Your task to perform on an android device: Is it going to rain this weekend? Image 0: 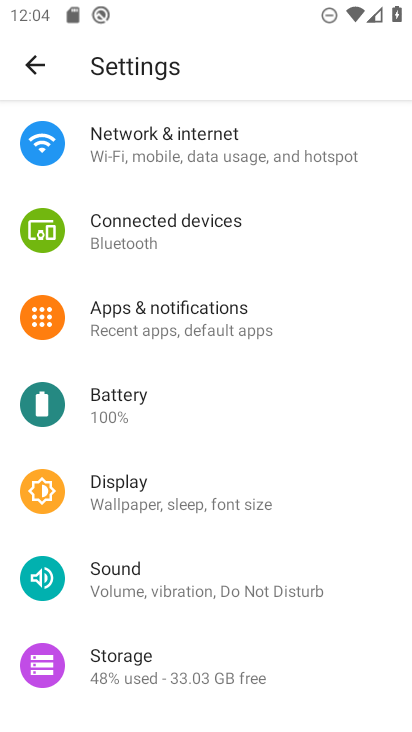
Step 0: press home button
Your task to perform on an android device: Is it going to rain this weekend? Image 1: 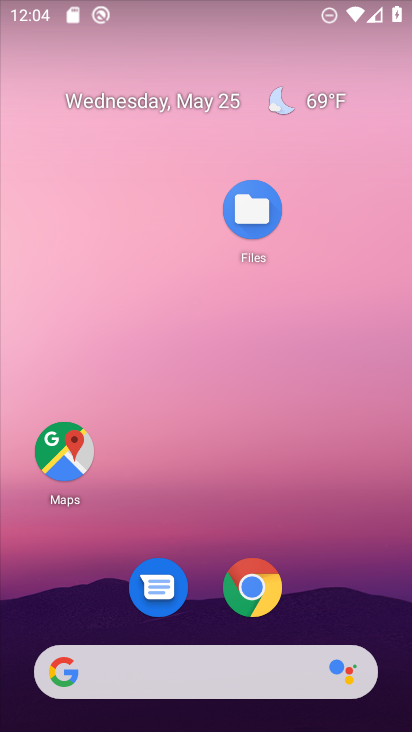
Step 1: click (334, 612)
Your task to perform on an android device: Is it going to rain this weekend? Image 2: 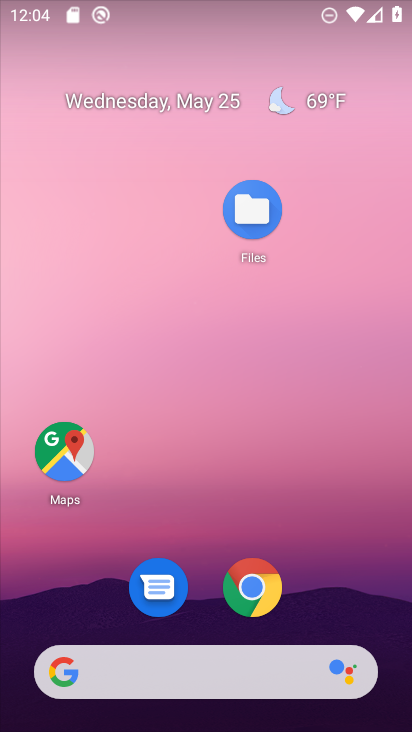
Step 2: click (266, 604)
Your task to perform on an android device: Is it going to rain this weekend? Image 3: 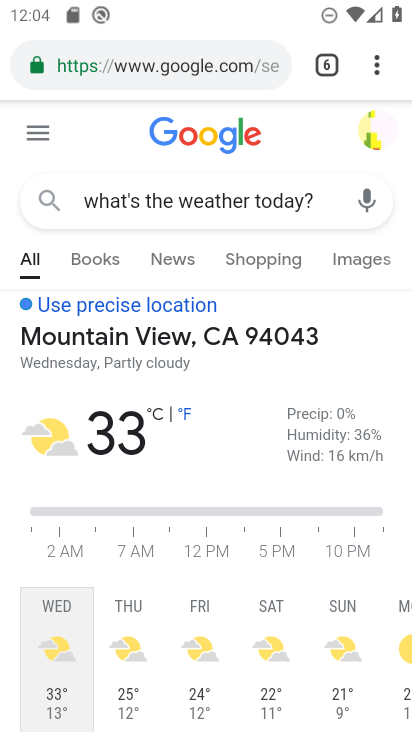
Step 3: click (277, 659)
Your task to perform on an android device: Is it going to rain this weekend? Image 4: 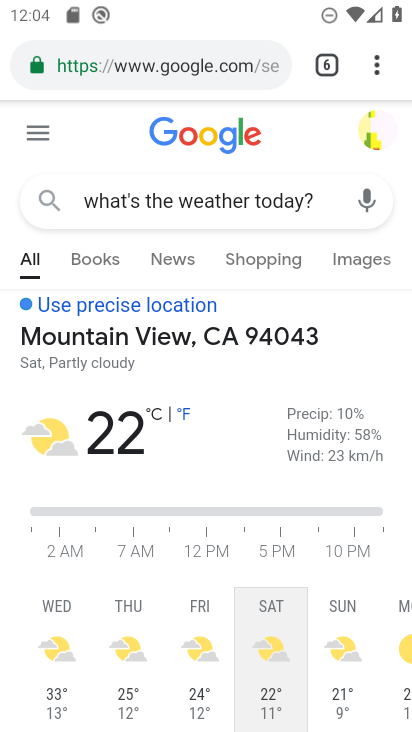
Step 4: click (345, 648)
Your task to perform on an android device: Is it going to rain this weekend? Image 5: 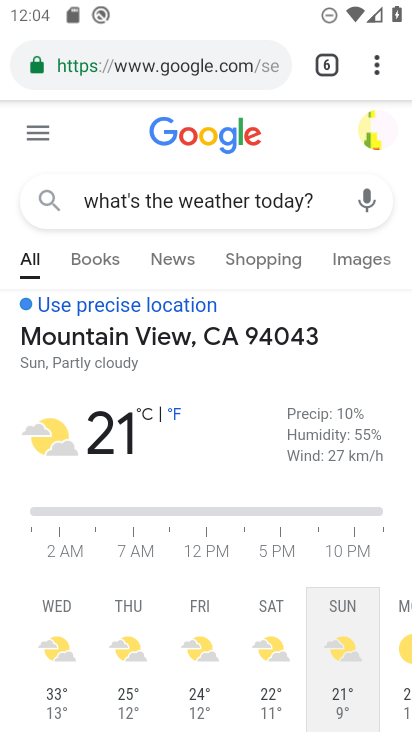
Step 5: click (269, 653)
Your task to perform on an android device: Is it going to rain this weekend? Image 6: 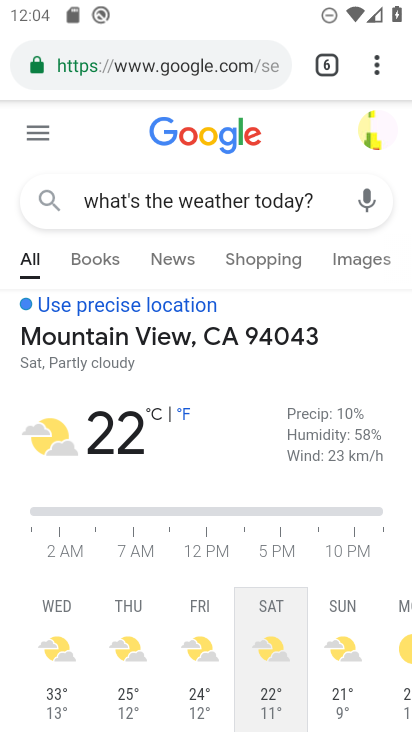
Step 6: task complete